Your task to perform on an android device: Search for Mexican restaurants on Maps Image 0: 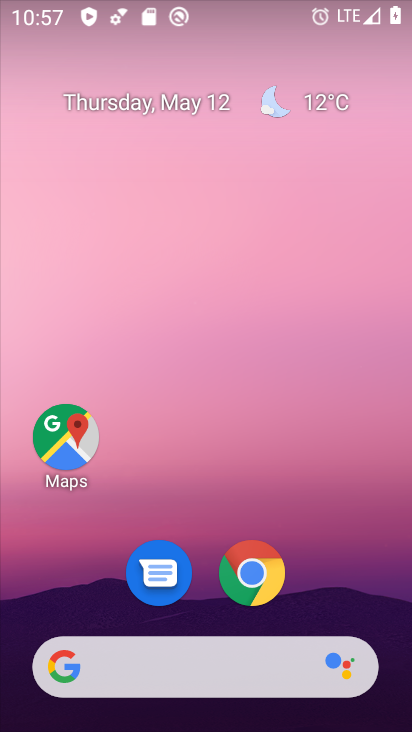
Step 0: click (77, 438)
Your task to perform on an android device: Search for Mexican restaurants on Maps Image 1: 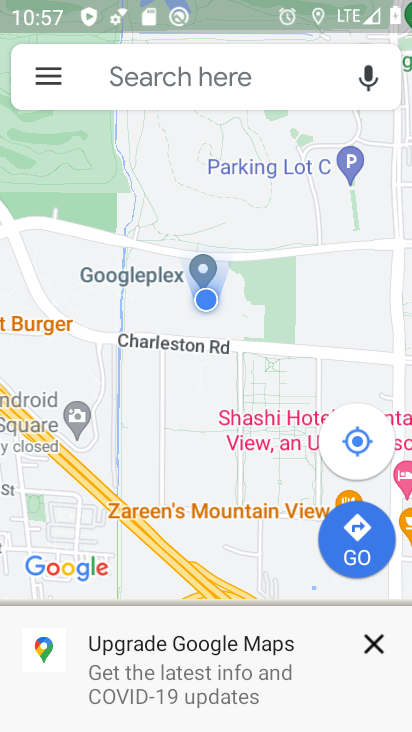
Step 1: click (132, 88)
Your task to perform on an android device: Search for Mexican restaurants on Maps Image 2: 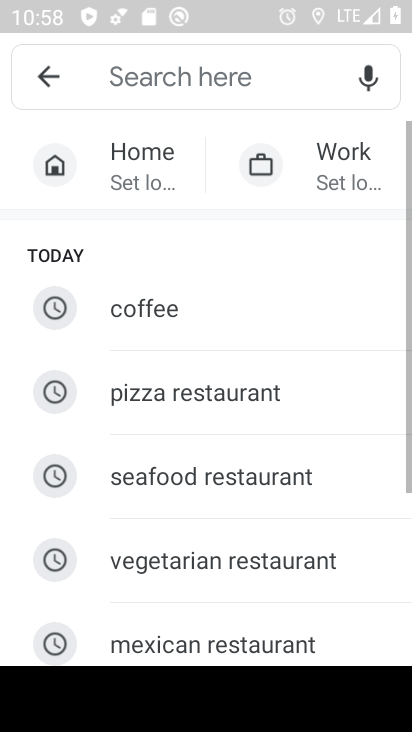
Step 2: click (219, 642)
Your task to perform on an android device: Search for Mexican restaurants on Maps Image 3: 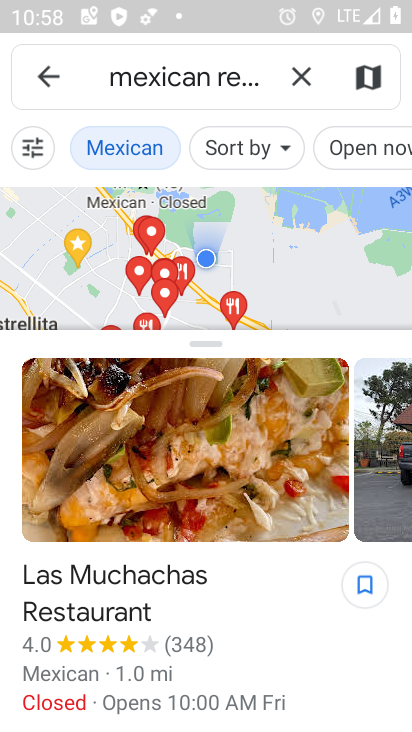
Step 3: task complete